Your task to perform on an android device: move an email to a new category in the gmail app Image 0: 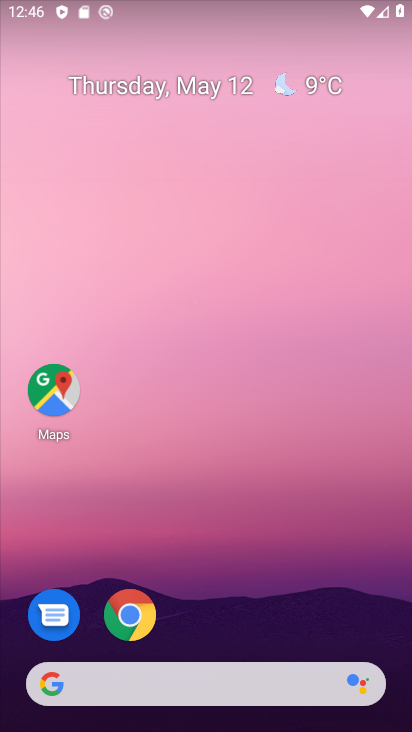
Step 0: drag from (271, 509) to (263, 12)
Your task to perform on an android device: move an email to a new category in the gmail app Image 1: 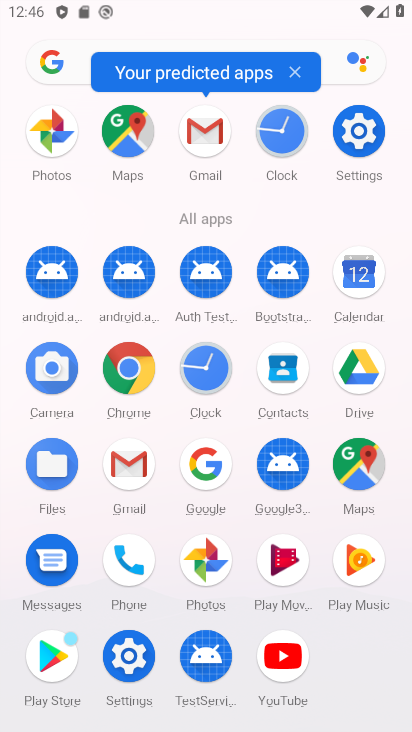
Step 1: click (130, 474)
Your task to perform on an android device: move an email to a new category in the gmail app Image 2: 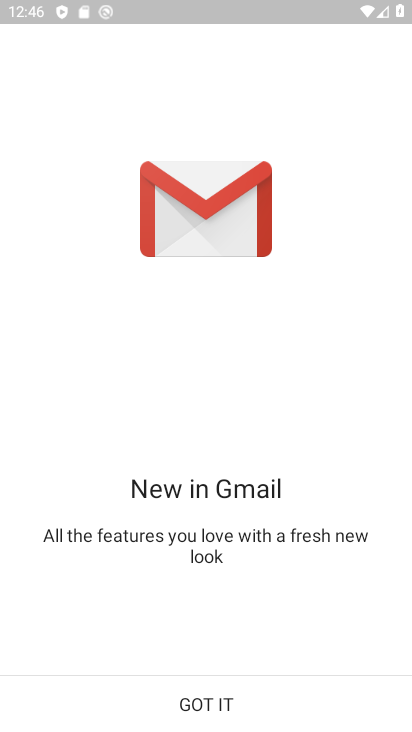
Step 2: click (247, 701)
Your task to perform on an android device: move an email to a new category in the gmail app Image 3: 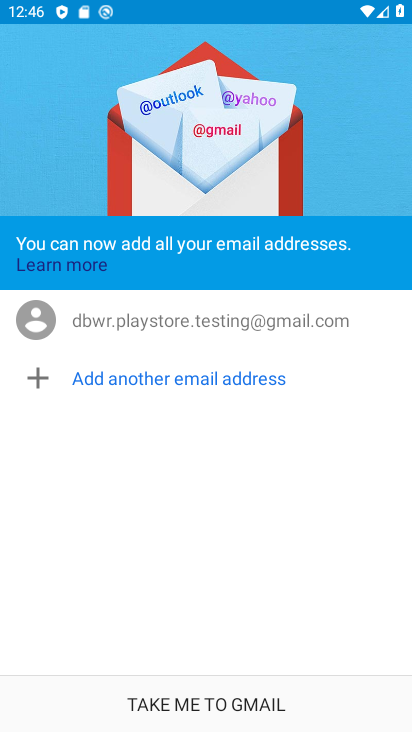
Step 3: click (277, 718)
Your task to perform on an android device: move an email to a new category in the gmail app Image 4: 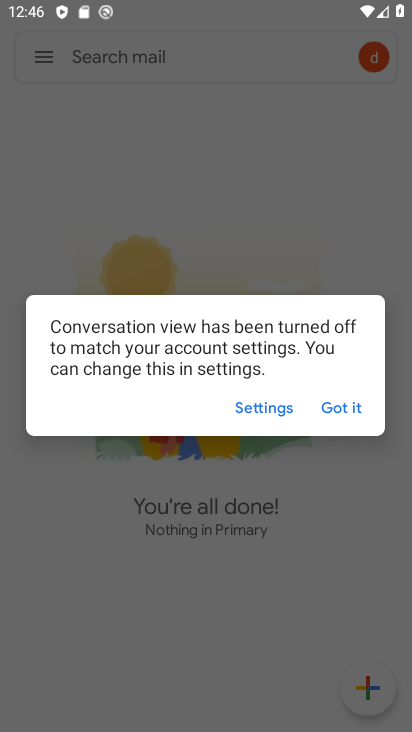
Step 4: click (356, 408)
Your task to perform on an android device: move an email to a new category in the gmail app Image 5: 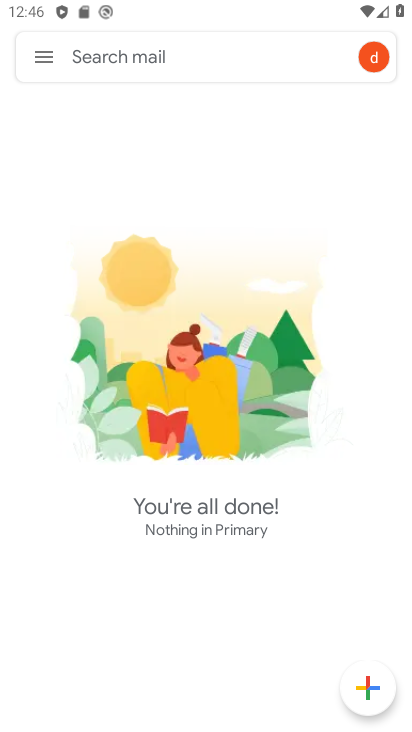
Step 5: click (47, 54)
Your task to perform on an android device: move an email to a new category in the gmail app Image 6: 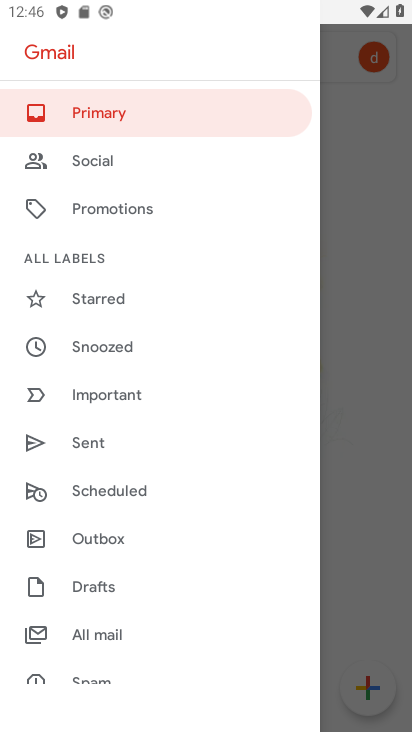
Step 6: click (139, 632)
Your task to perform on an android device: move an email to a new category in the gmail app Image 7: 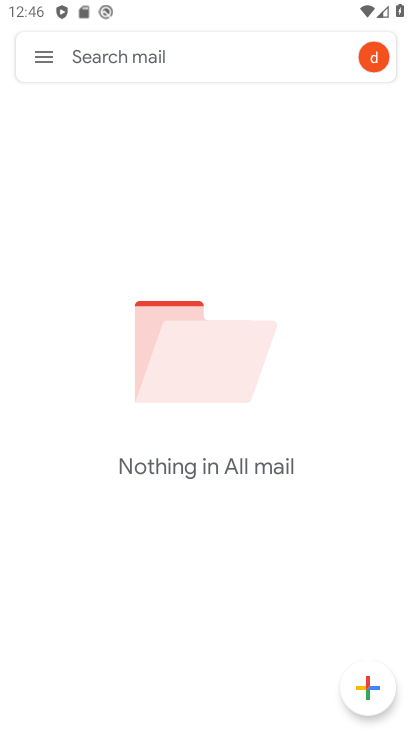
Step 7: task complete